Your task to perform on an android device: change the clock display to digital Image 0: 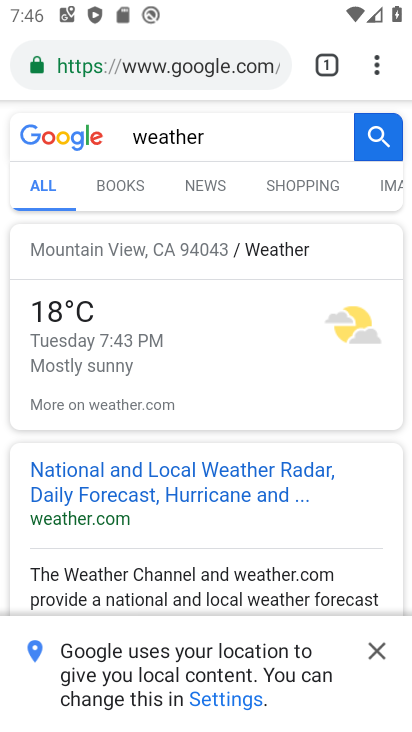
Step 0: press home button
Your task to perform on an android device: change the clock display to digital Image 1: 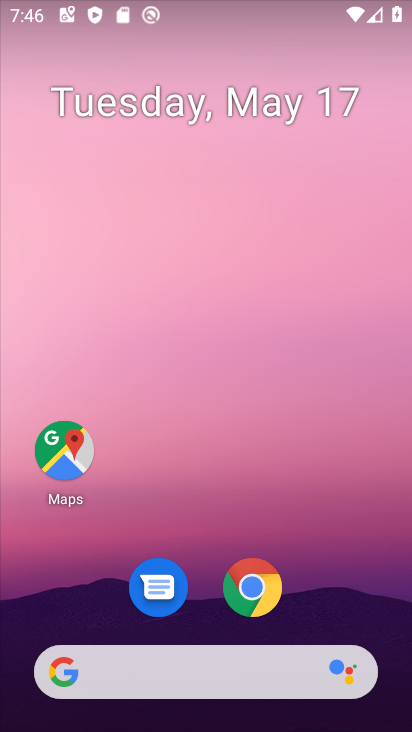
Step 1: drag from (360, 499) to (298, 159)
Your task to perform on an android device: change the clock display to digital Image 2: 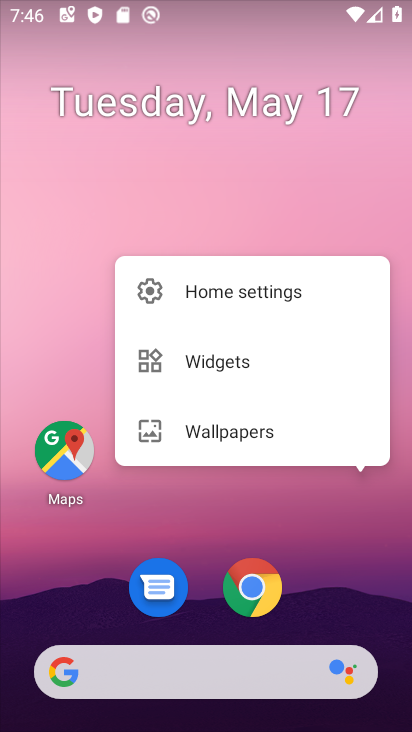
Step 2: drag from (322, 515) to (198, 149)
Your task to perform on an android device: change the clock display to digital Image 3: 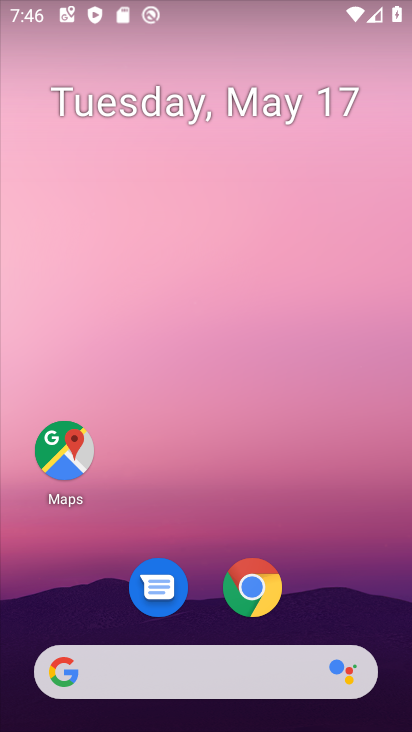
Step 3: drag from (329, 553) to (291, 117)
Your task to perform on an android device: change the clock display to digital Image 4: 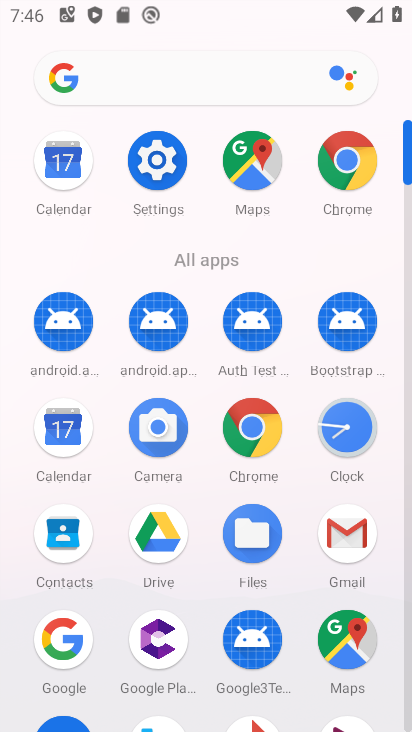
Step 4: click (352, 421)
Your task to perform on an android device: change the clock display to digital Image 5: 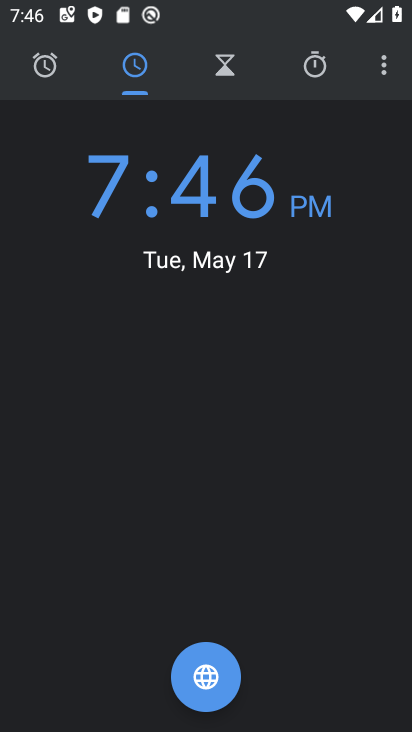
Step 5: click (384, 63)
Your task to perform on an android device: change the clock display to digital Image 6: 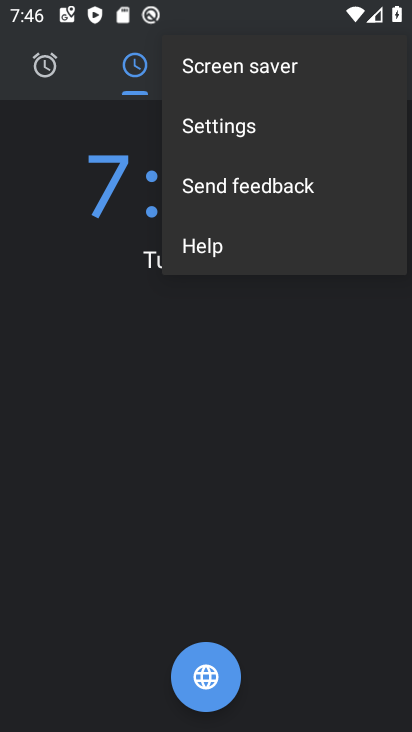
Step 6: click (221, 128)
Your task to perform on an android device: change the clock display to digital Image 7: 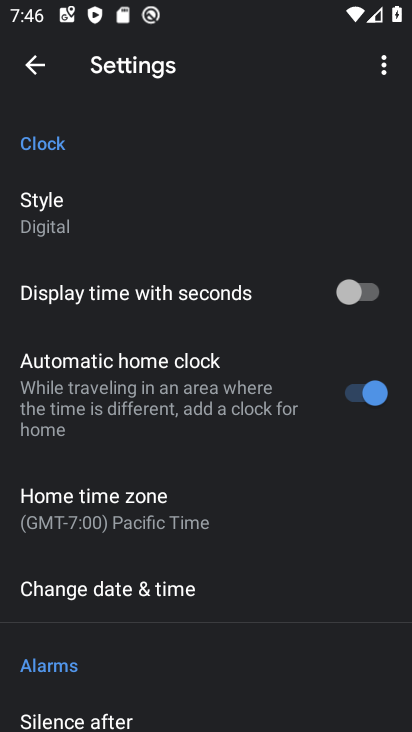
Step 7: click (61, 197)
Your task to perform on an android device: change the clock display to digital Image 8: 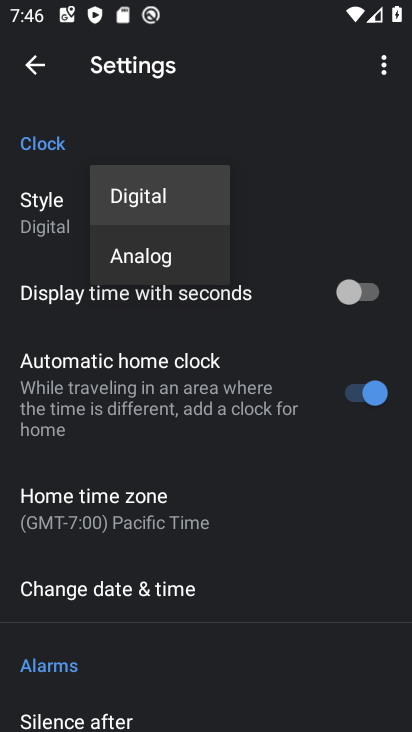
Step 8: task complete